Your task to perform on an android device: turn off sleep mode Image 0: 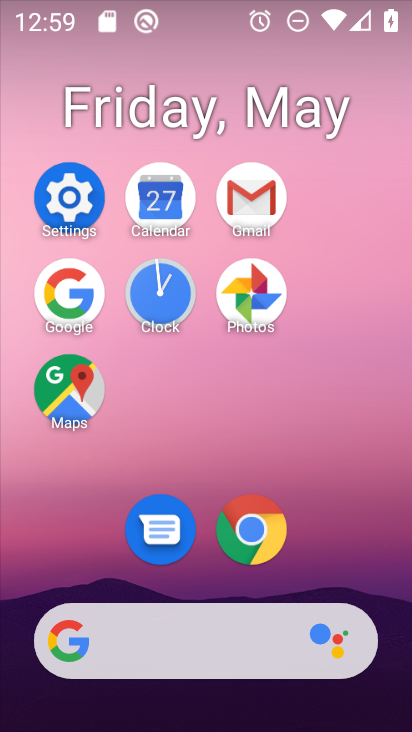
Step 0: click (64, 200)
Your task to perform on an android device: turn off sleep mode Image 1: 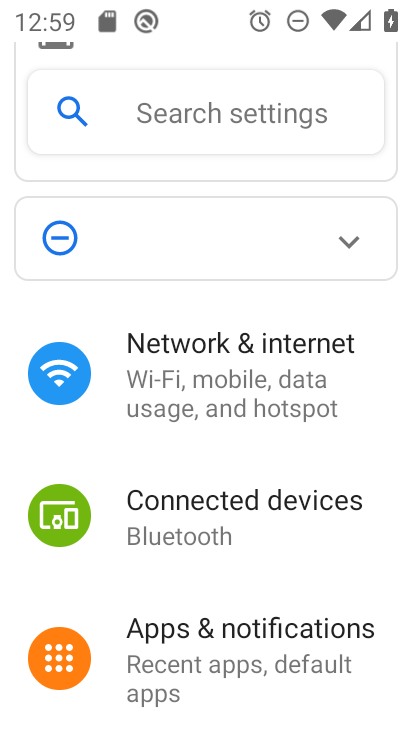
Step 1: drag from (334, 590) to (312, 140)
Your task to perform on an android device: turn off sleep mode Image 2: 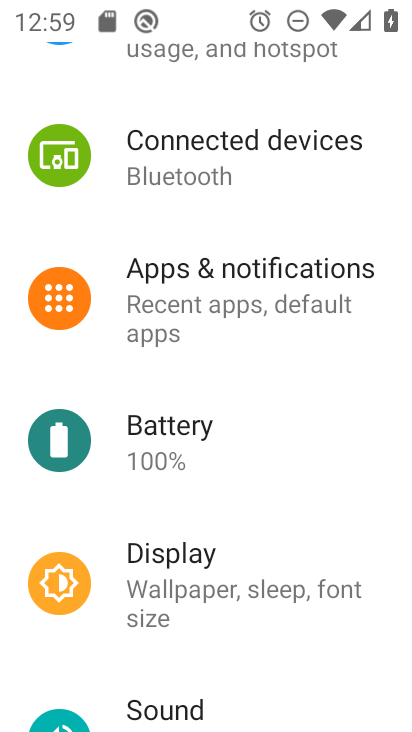
Step 2: drag from (299, 529) to (280, 217)
Your task to perform on an android device: turn off sleep mode Image 3: 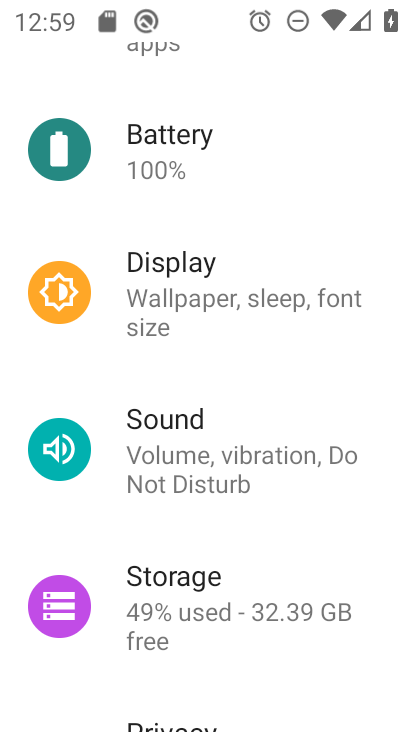
Step 3: drag from (249, 492) to (222, 137)
Your task to perform on an android device: turn off sleep mode Image 4: 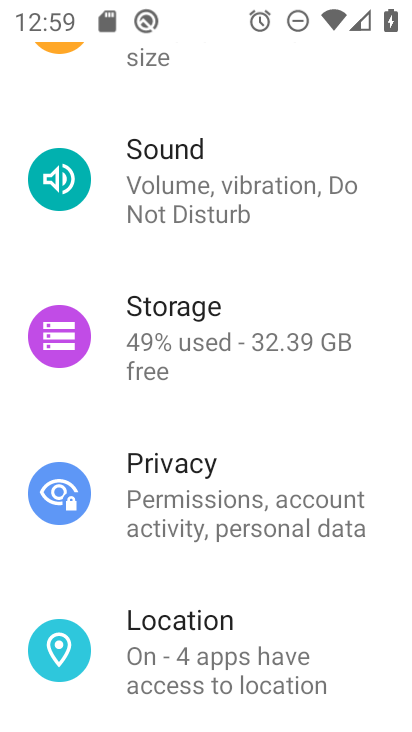
Step 4: drag from (232, 184) to (266, 598)
Your task to perform on an android device: turn off sleep mode Image 5: 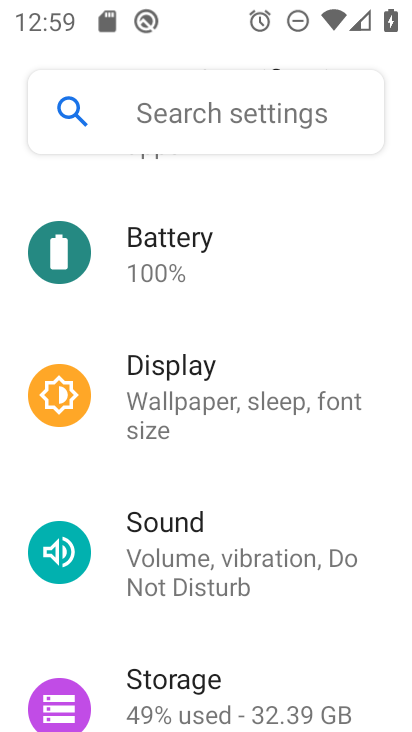
Step 5: click (272, 413)
Your task to perform on an android device: turn off sleep mode Image 6: 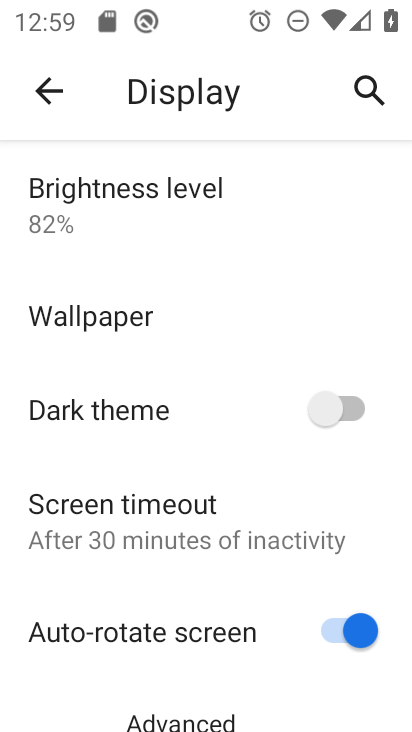
Step 6: click (258, 529)
Your task to perform on an android device: turn off sleep mode Image 7: 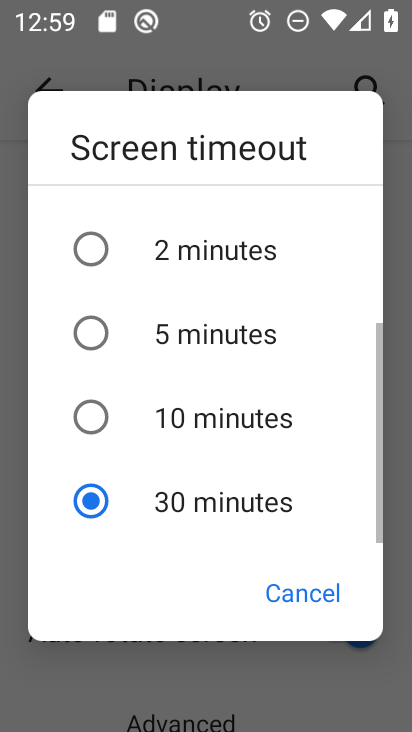
Step 7: click (252, 329)
Your task to perform on an android device: turn off sleep mode Image 8: 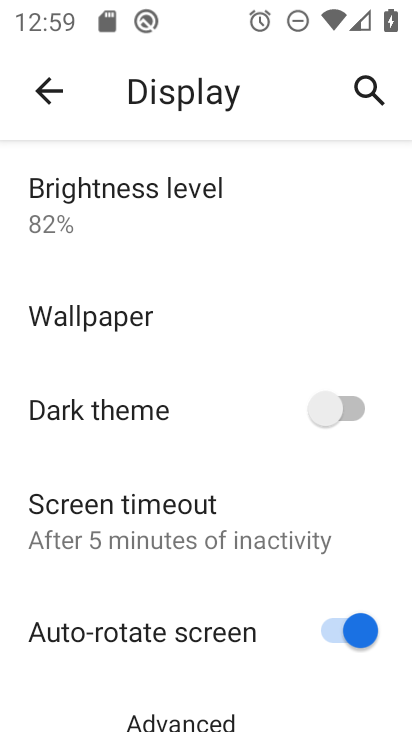
Step 8: task complete